Your task to perform on an android device: see creations saved in the google photos Image 0: 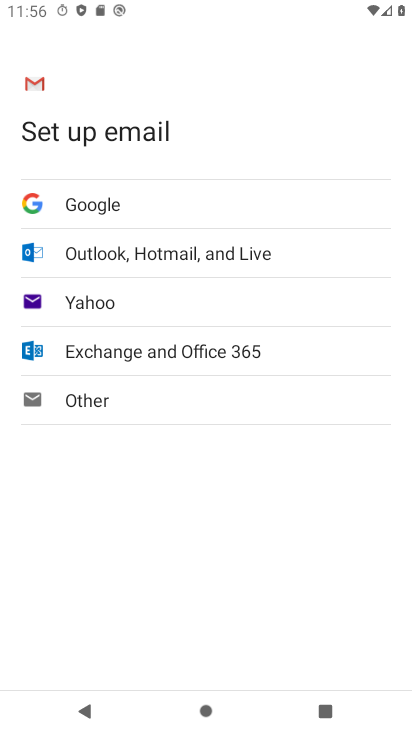
Step 0: press back button
Your task to perform on an android device: see creations saved in the google photos Image 1: 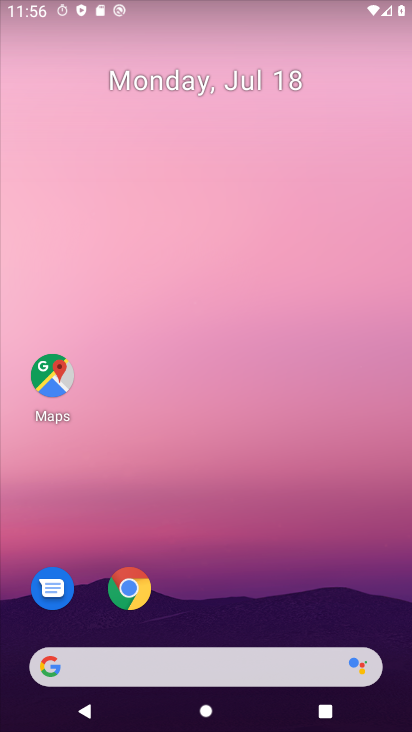
Step 1: drag from (232, 636) to (219, 67)
Your task to perform on an android device: see creations saved in the google photos Image 2: 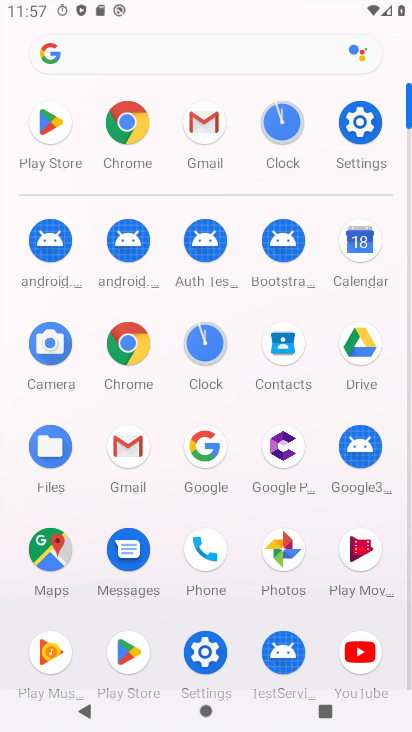
Step 2: click (271, 550)
Your task to perform on an android device: see creations saved in the google photos Image 3: 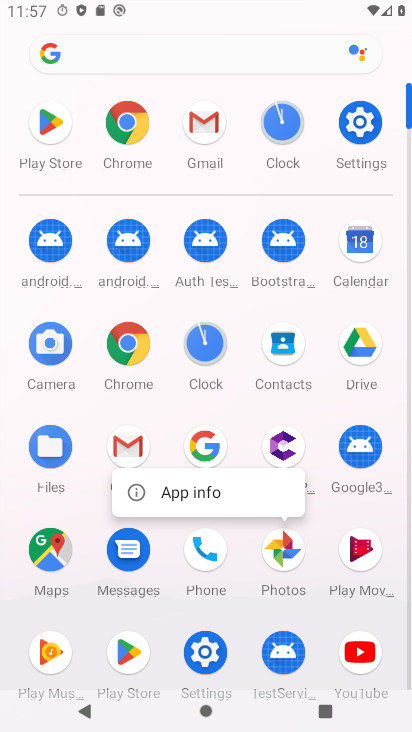
Step 3: click (279, 555)
Your task to perform on an android device: see creations saved in the google photos Image 4: 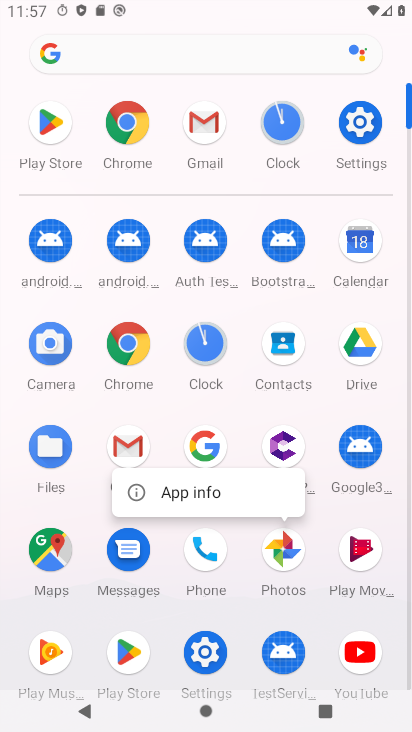
Step 4: click (283, 551)
Your task to perform on an android device: see creations saved in the google photos Image 5: 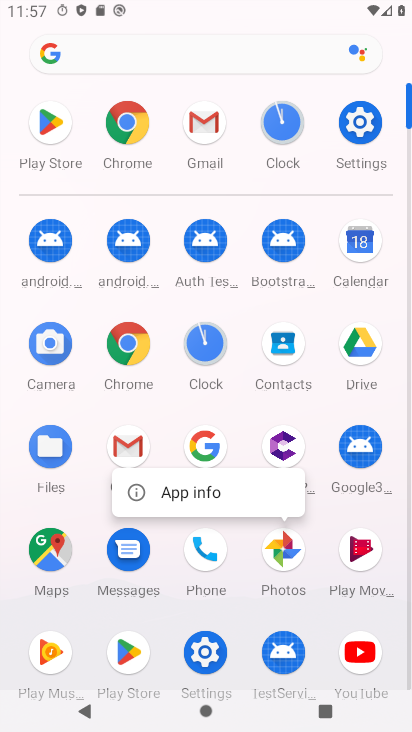
Step 5: click (283, 551)
Your task to perform on an android device: see creations saved in the google photos Image 6: 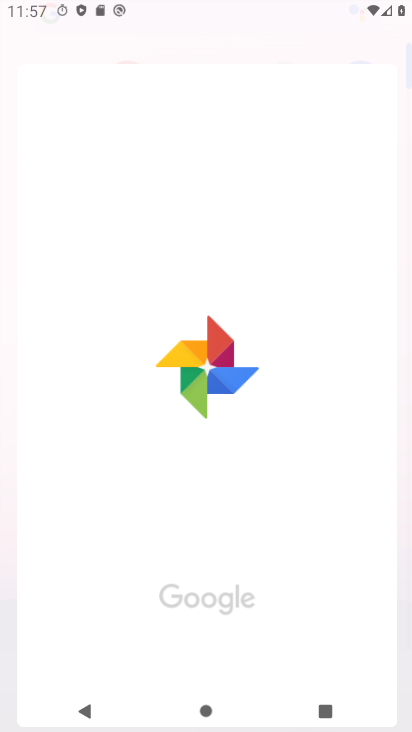
Step 6: click (285, 551)
Your task to perform on an android device: see creations saved in the google photos Image 7: 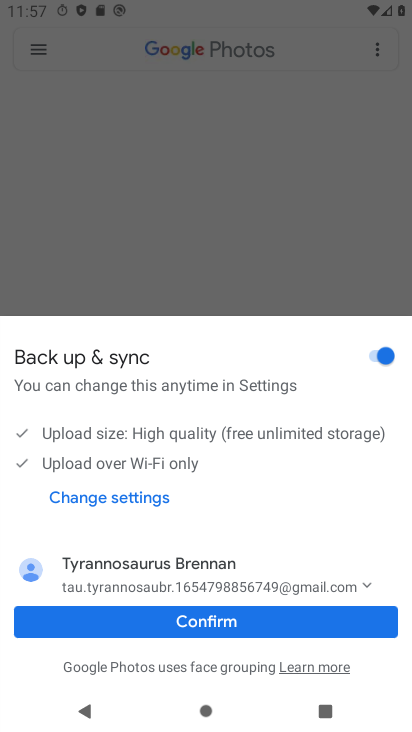
Step 7: click (203, 622)
Your task to perform on an android device: see creations saved in the google photos Image 8: 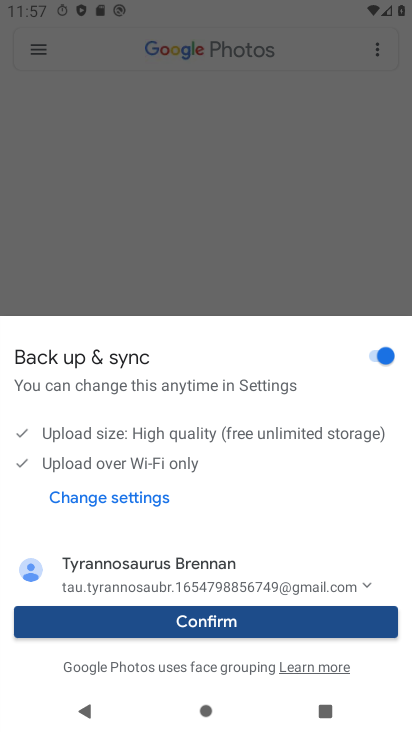
Step 8: click (203, 622)
Your task to perform on an android device: see creations saved in the google photos Image 9: 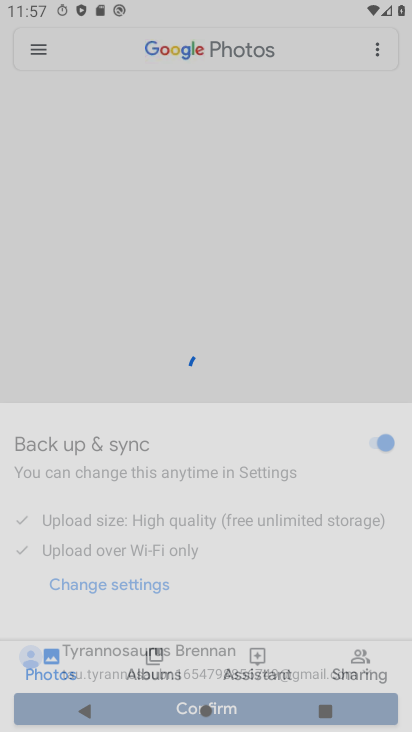
Step 9: click (210, 626)
Your task to perform on an android device: see creations saved in the google photos Image 10: 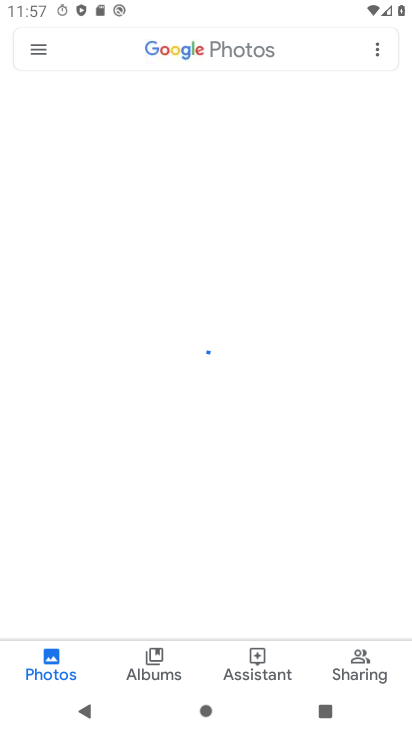
Step 10: click (215, 625)
Your task to perform on an android device: see creations saved in the google photos Image 11: 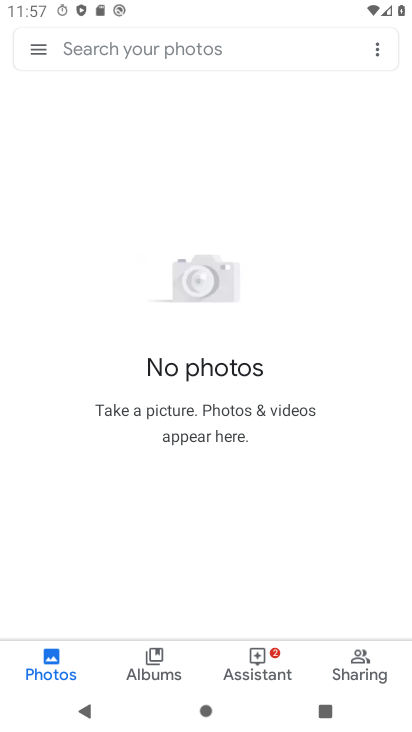
Step 11: task complete